Your task to perform on an android device: add a label to a message in the gmail app Image 0: 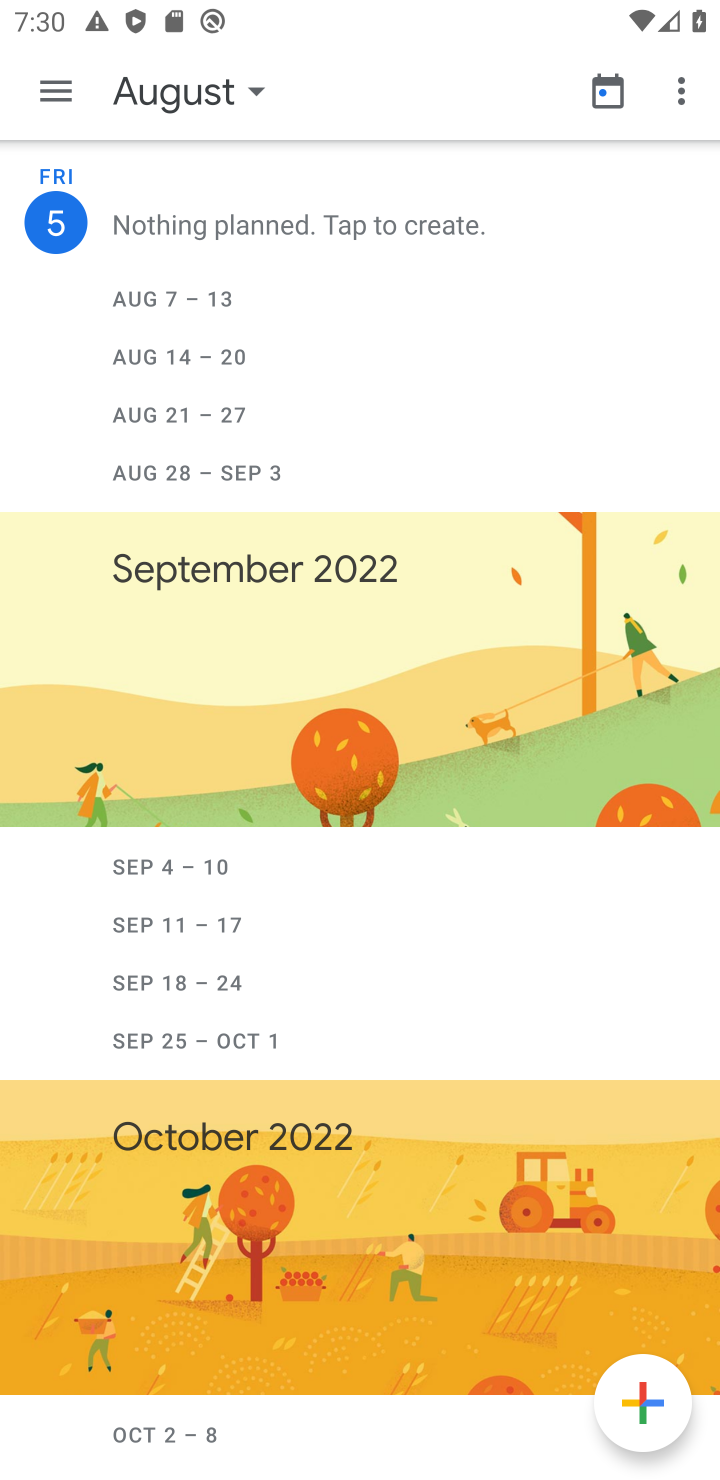
Step 0: press home button
Your task to perform on an android device: add a label to a message in the gmail app Image 1: 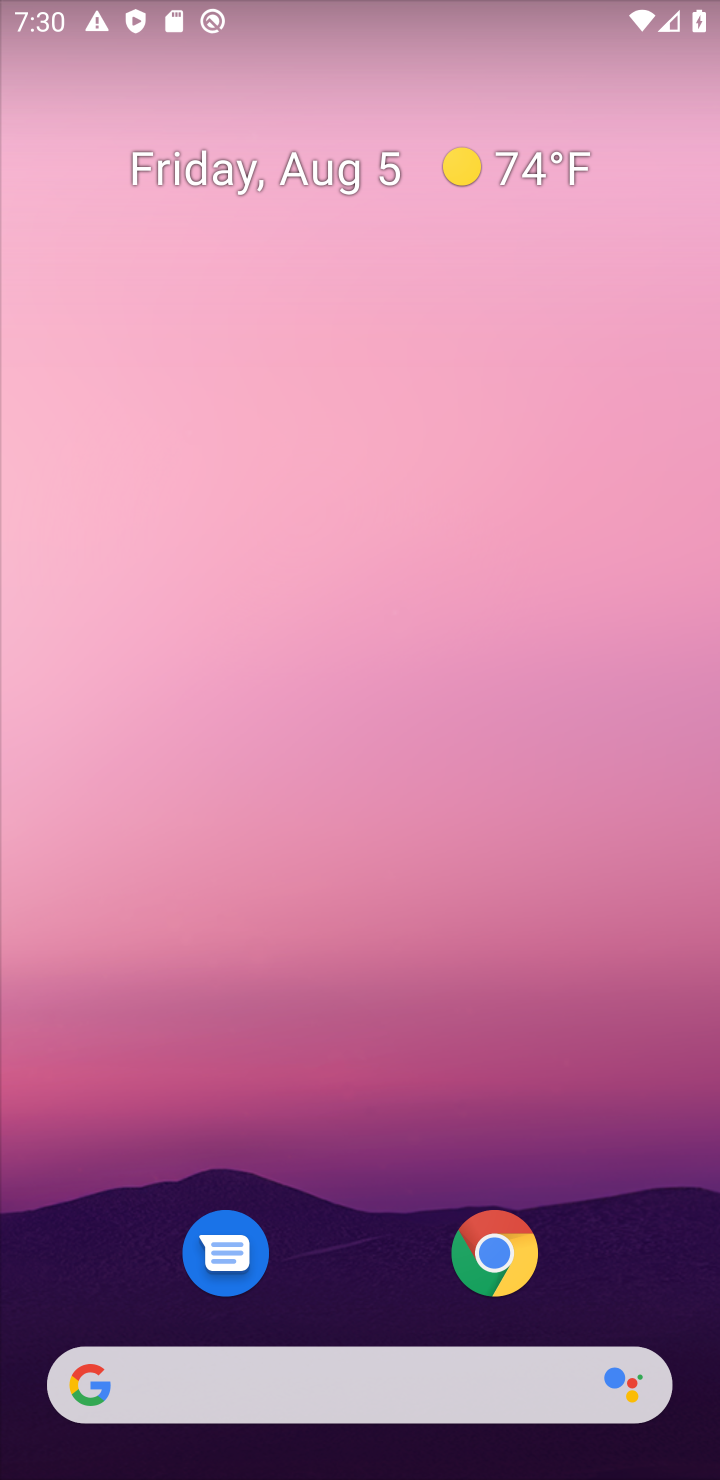
Step 1: drag from (436, 1258) to (714, 130)
Your task to perform on an android device: add a label to a message in the gmail app Image 2: 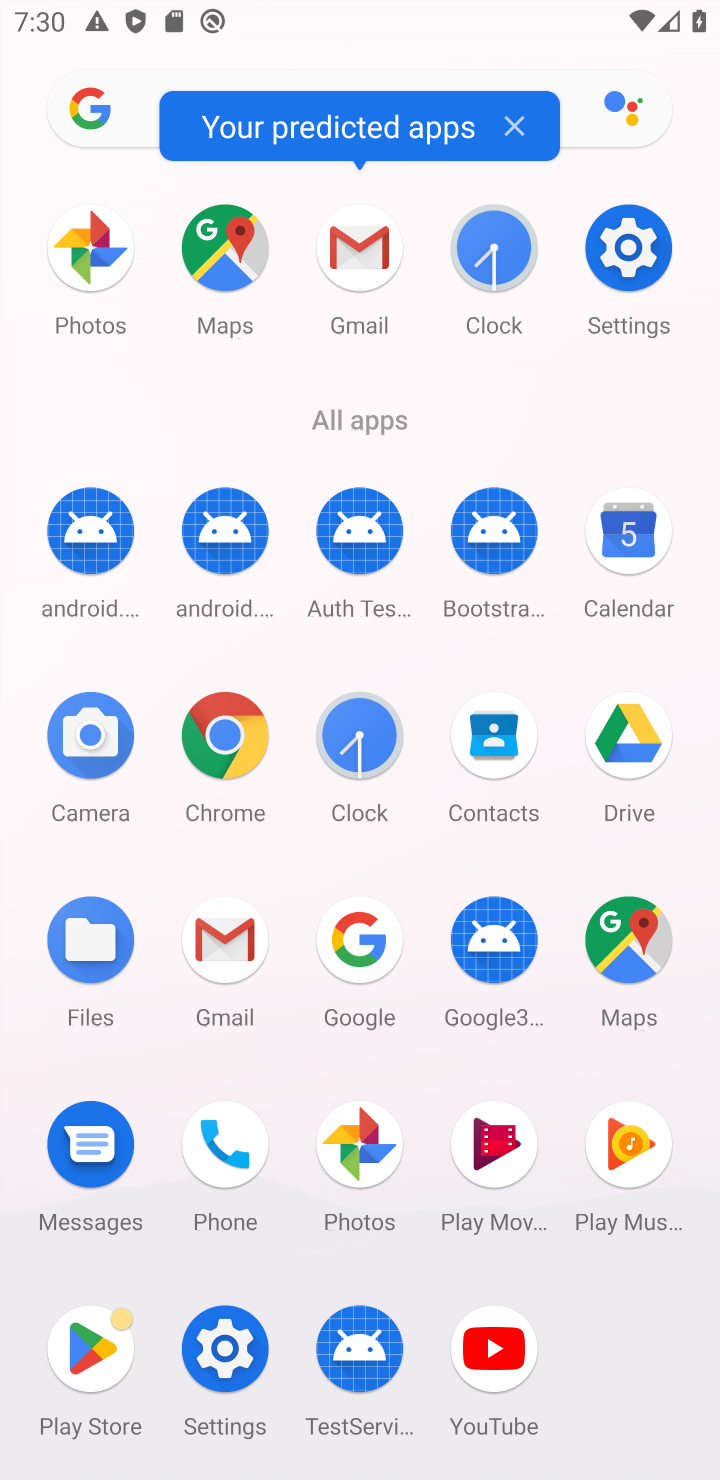
Step 2: click (364, 261)
Your task to perform on an android device: add a label to a message in the gmail app Image 3: 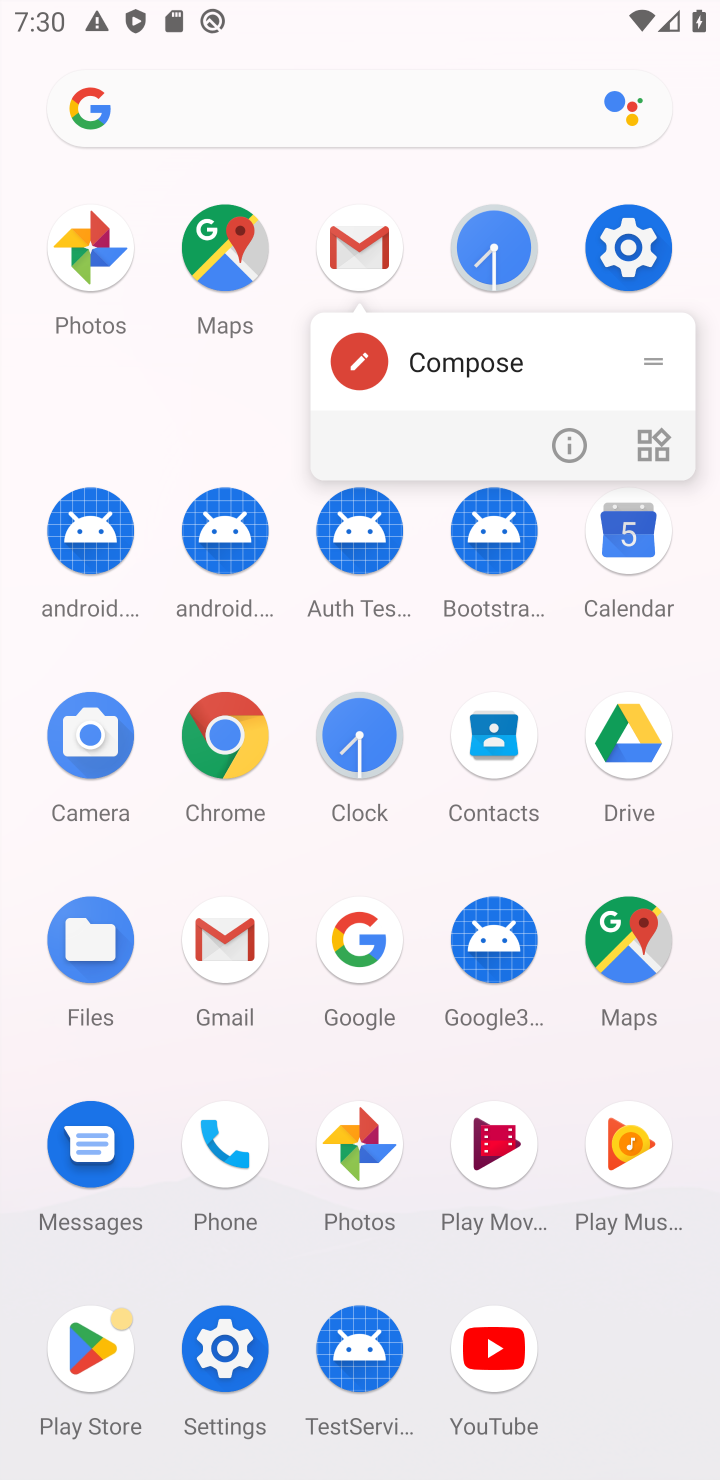
Step 3: click (355, 253)
Your task to perform on an android device: add a label to a message in the gmail app Image 4: 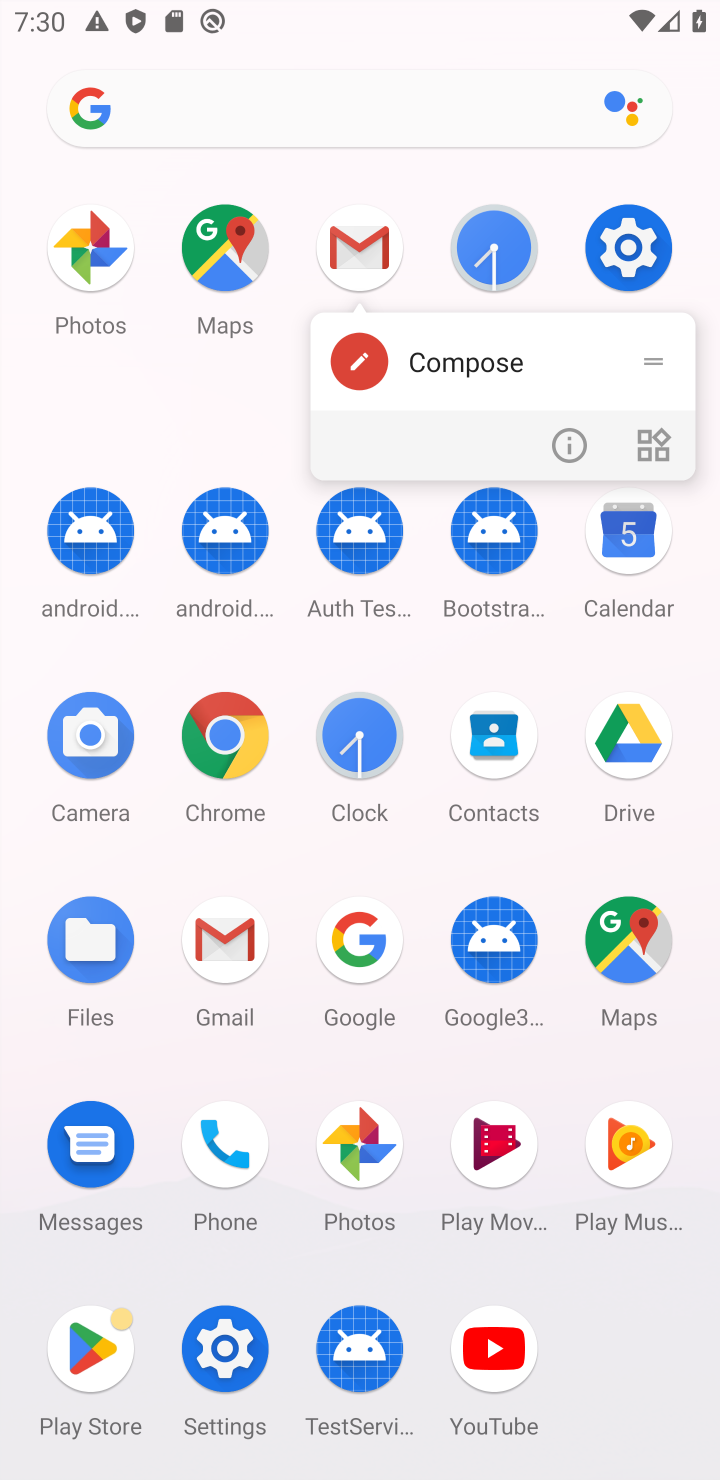
Step 4: click (357, 257)
Your task to perform on an android device: add a label to a message in the gmail app Image 5: 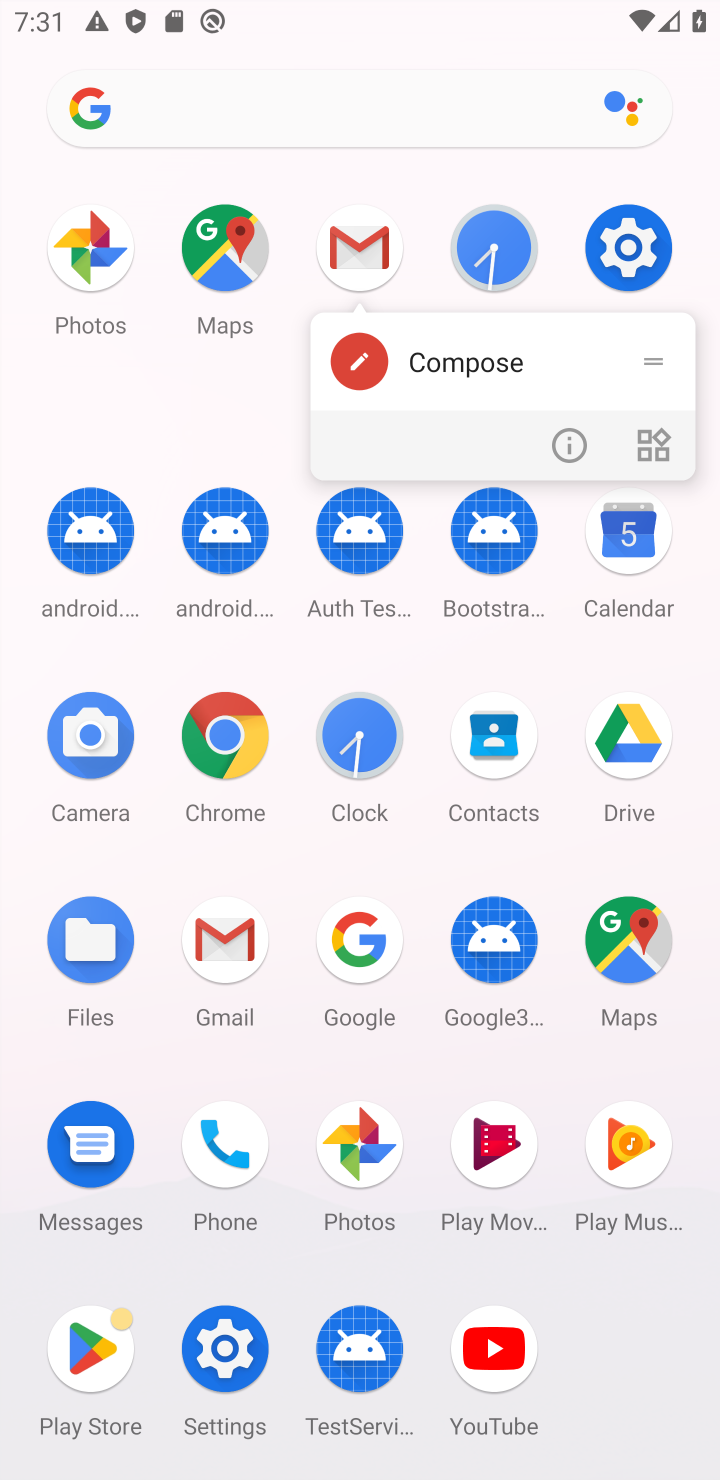
Step 5: click (365, 243)
Your task to perform on an android device: add a label to a message in the gmail app Image 6: 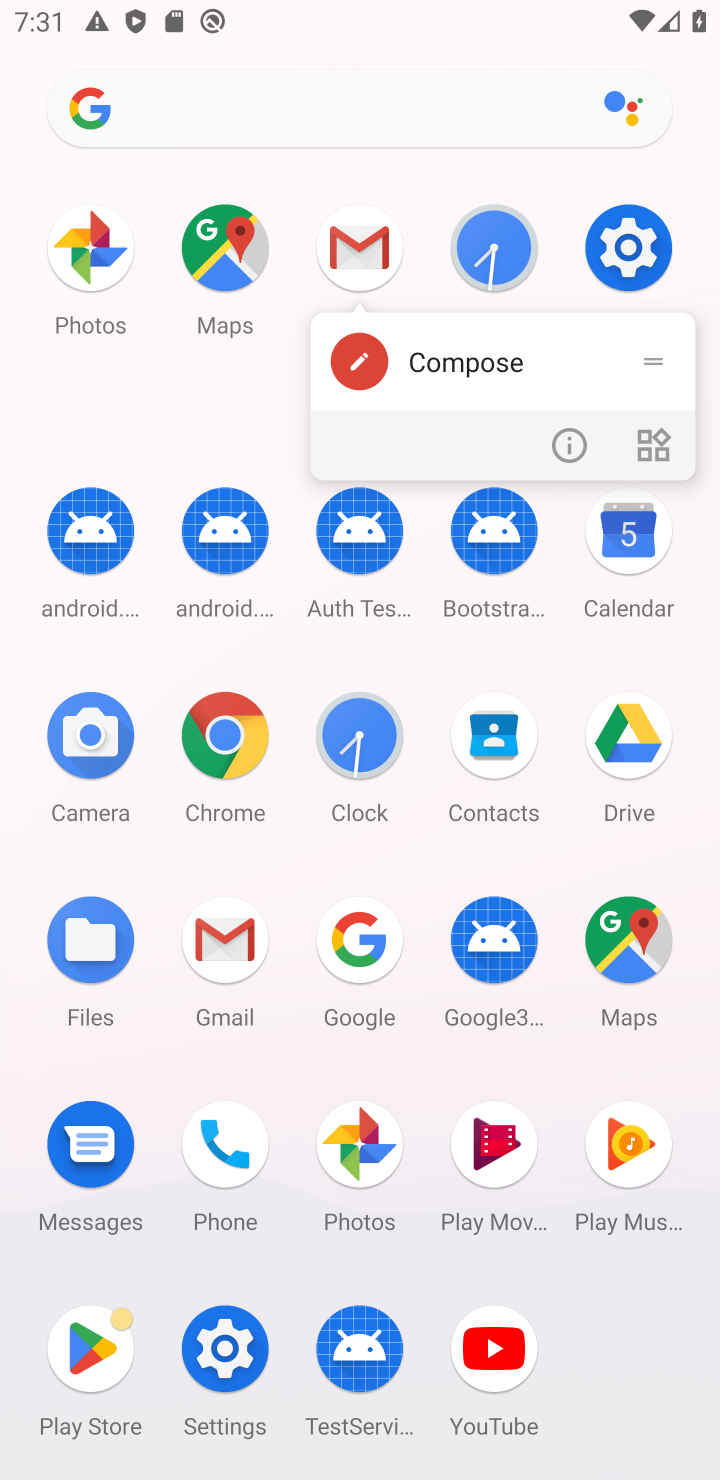
Step 6: click (365, 261)
Your task to perform on an android device: add a label to a message in the gmail app Image 7: 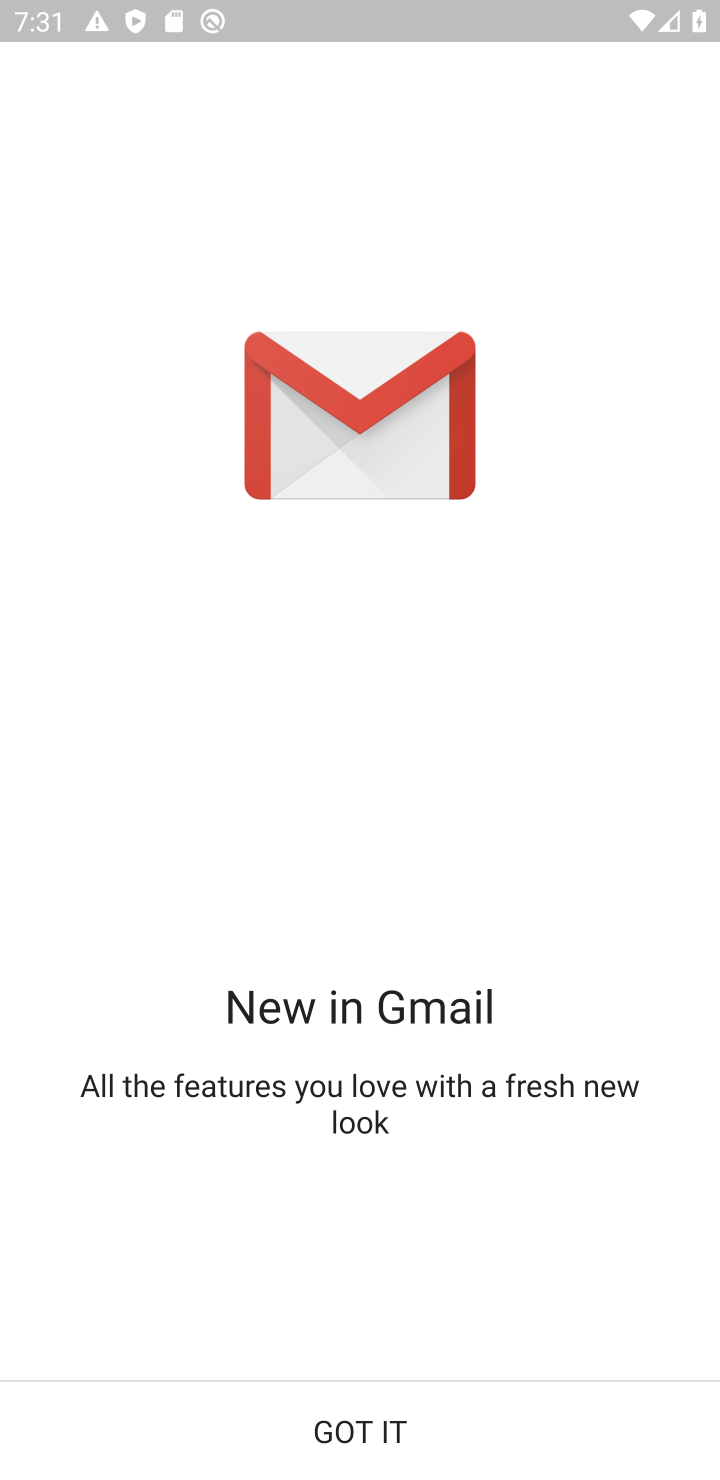
Step 7: click (359, 1422)
Your task to perform on an android device: add a label to a message in the gmail app Image 8: 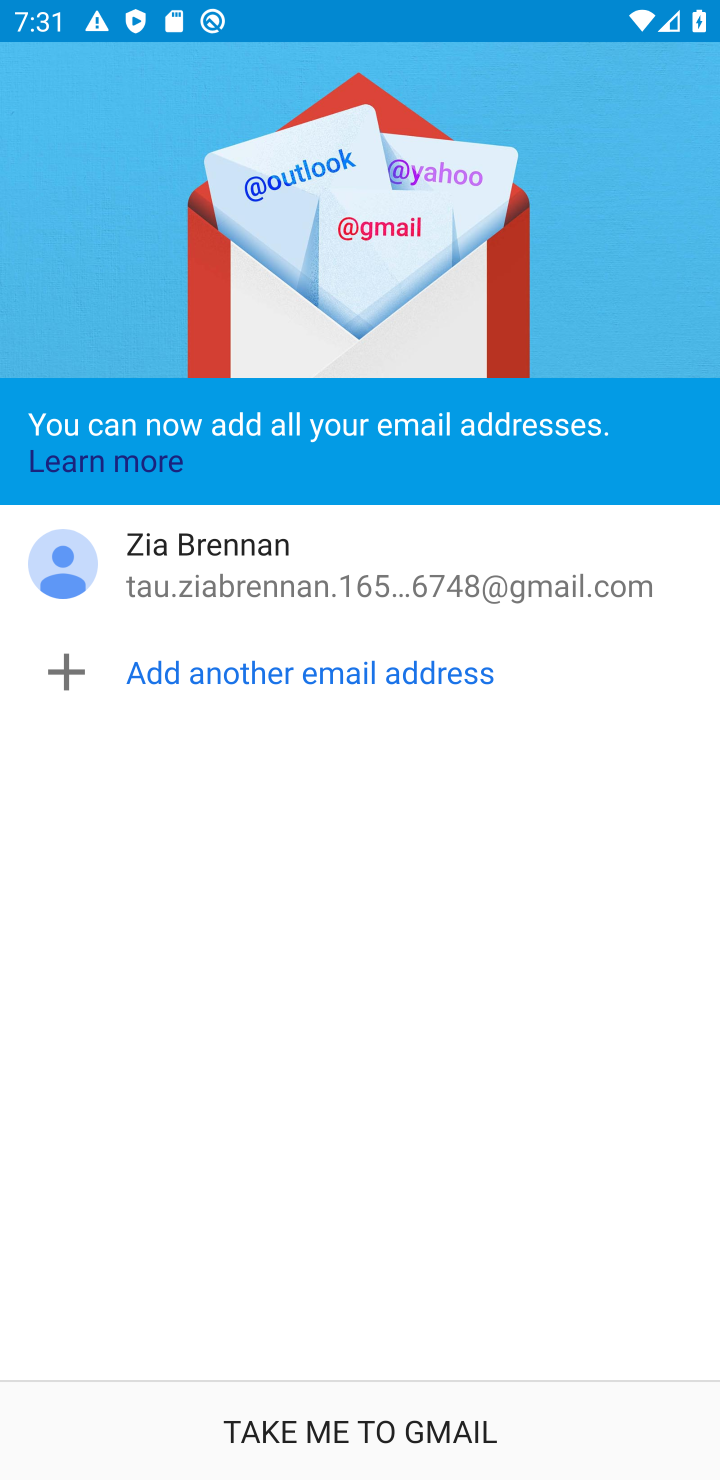
Step 8: click (366, 1420)
Your task to perform on an android device: add a label to a message in the gmail app Image 9: 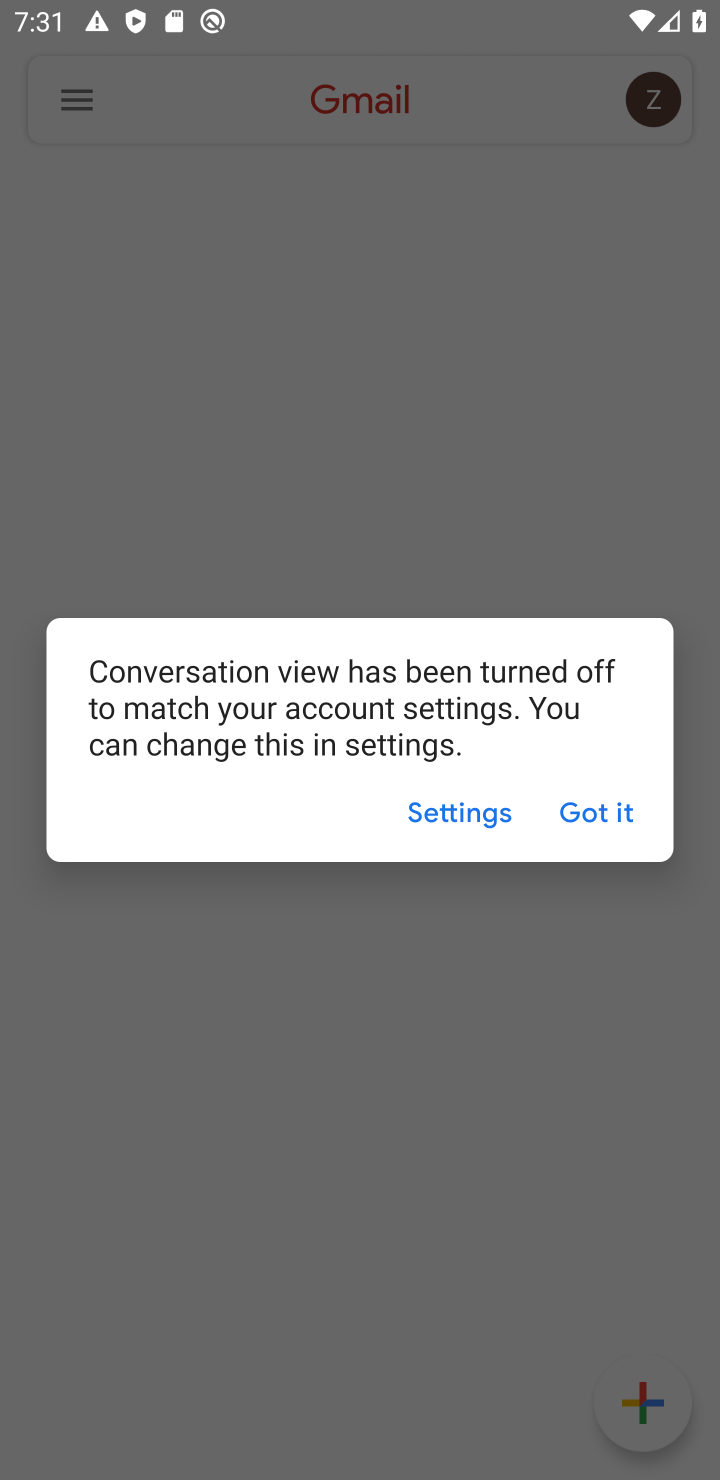
Step 9: click (611, 810)
Your task to perform on an android device: add a label to a message in the gmail app Image 10: 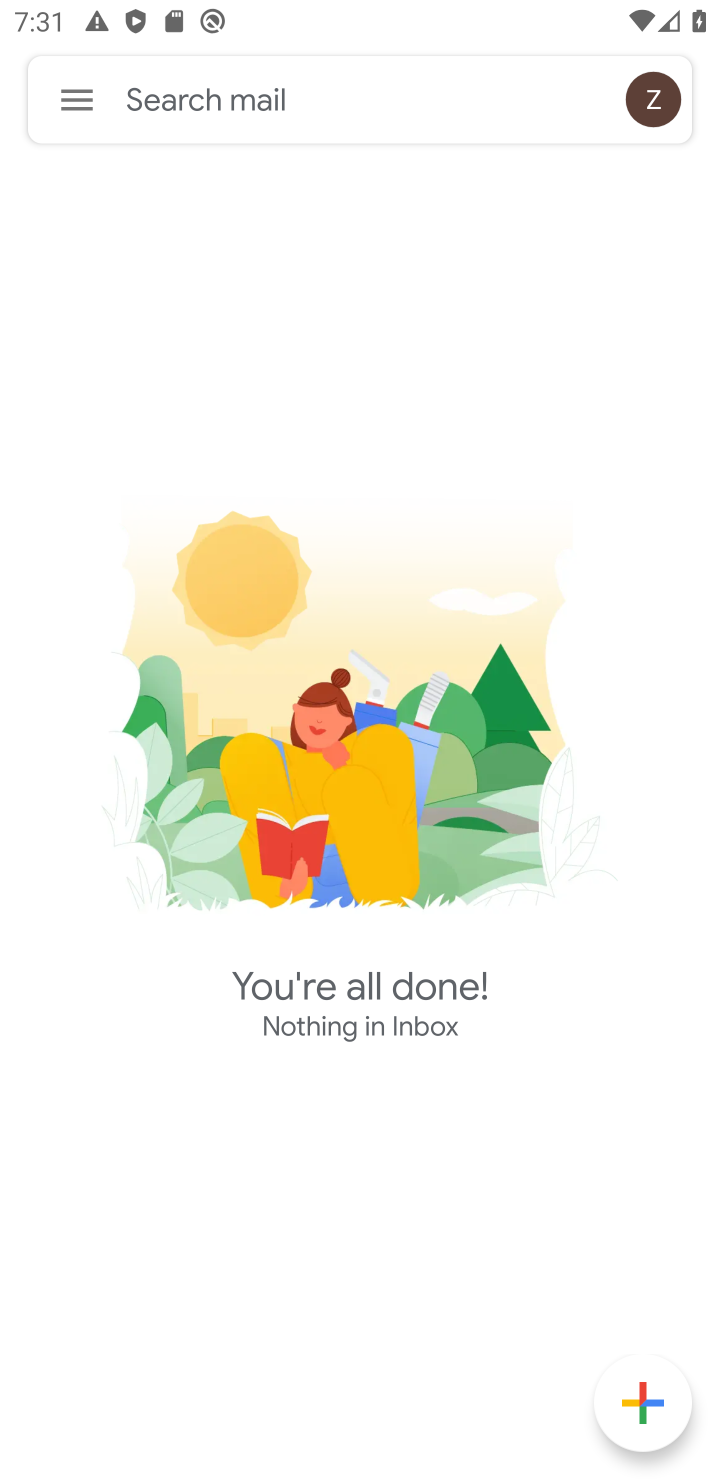
Step 10: click (66, 88)
Your task to perform on an android device: add a label to a message in the gmail app Image 11: 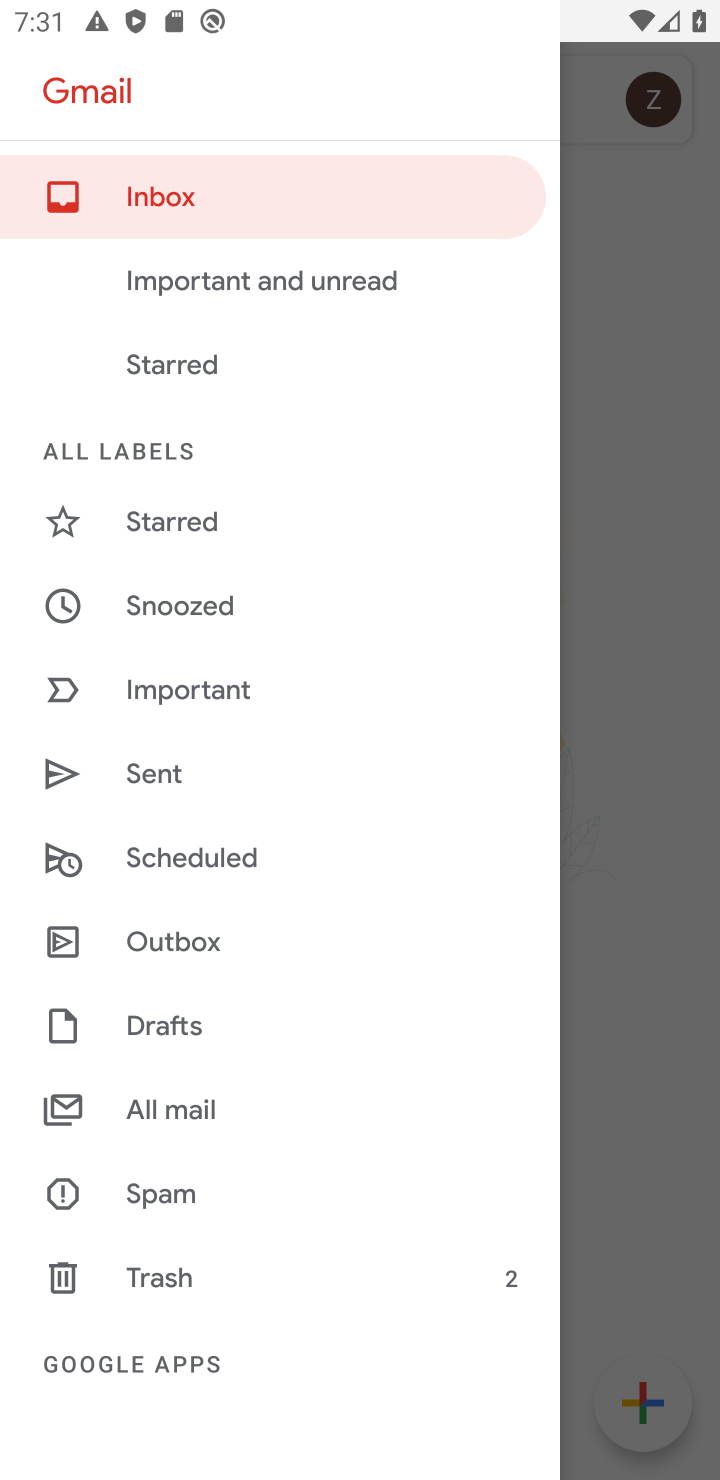
Step 11: click (216, 1096)
Your task to perform on an android device: add a label to a message in the gmail app Image 12: 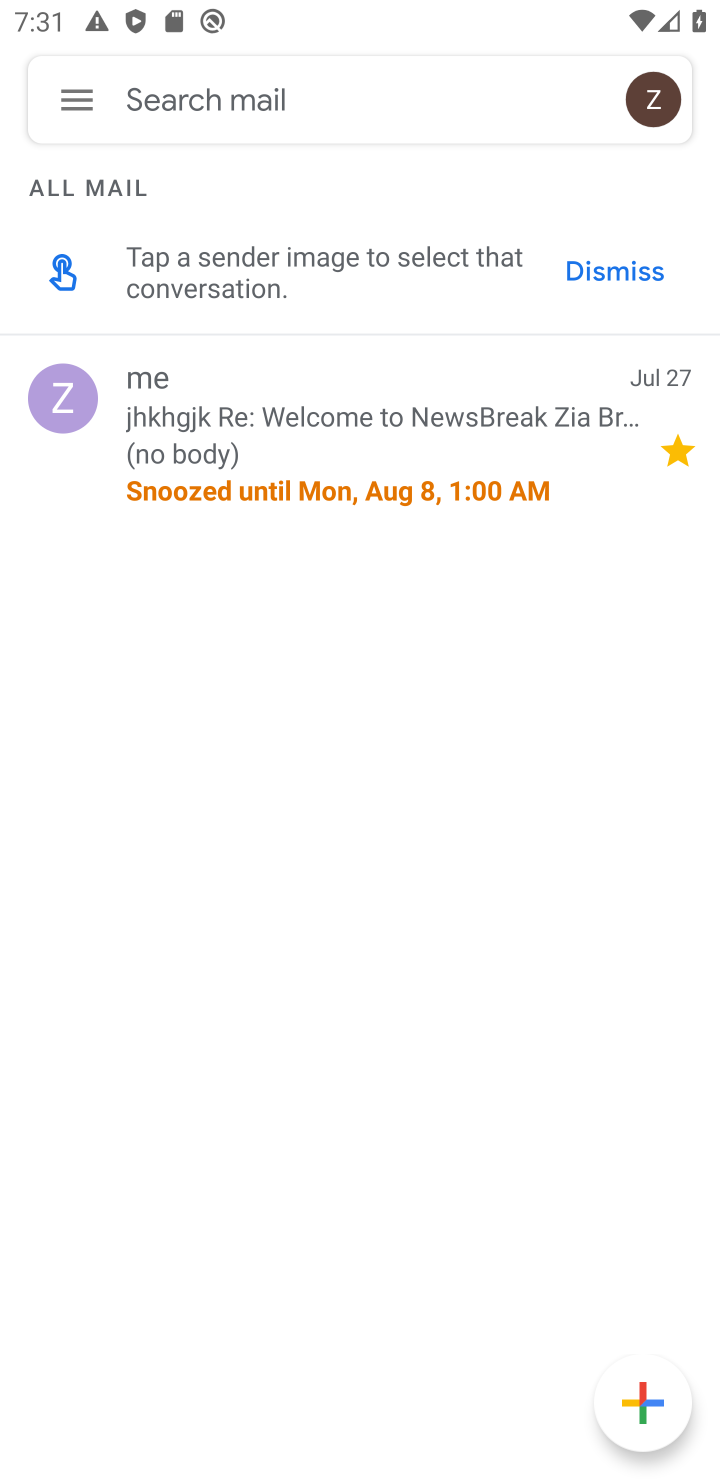
Step 12: click (268, 405)
Your task to perform on an android device: add a label to a message in the gmail app Image 13: 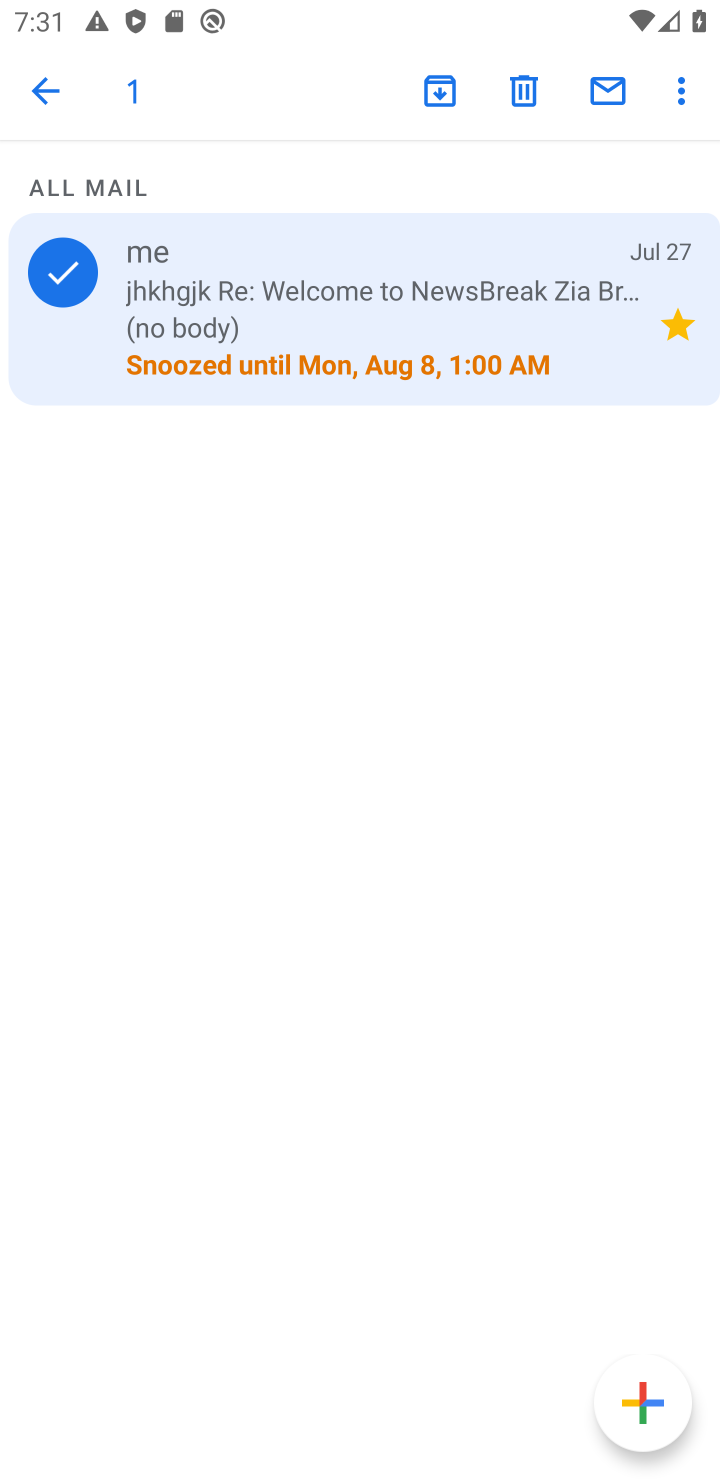
Step 13: click (215, 300)
Your task to perform on an android device: add a label to a message in the gmail app Image 14: 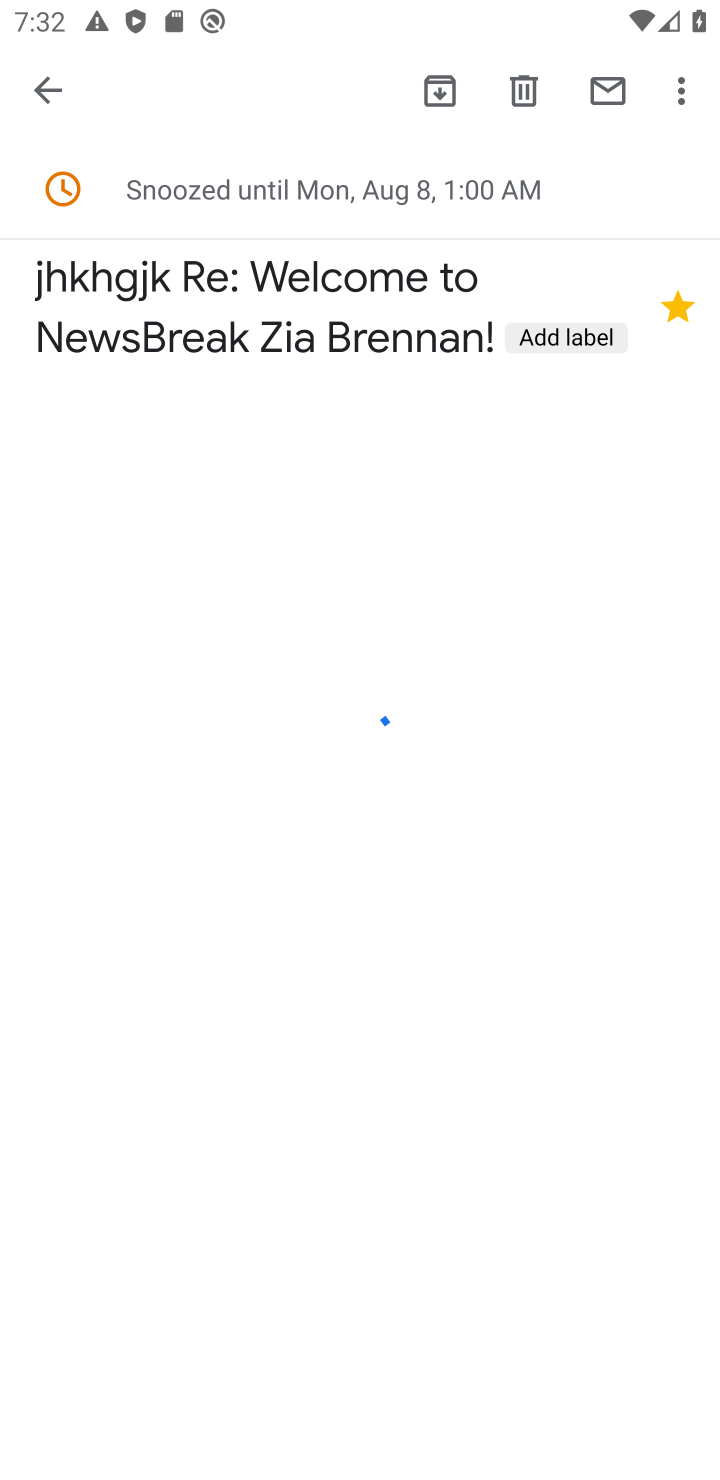
Step 14: click (584, 330)
Your task to perform on an android device: add a label to a message in the gmail app Image 15: 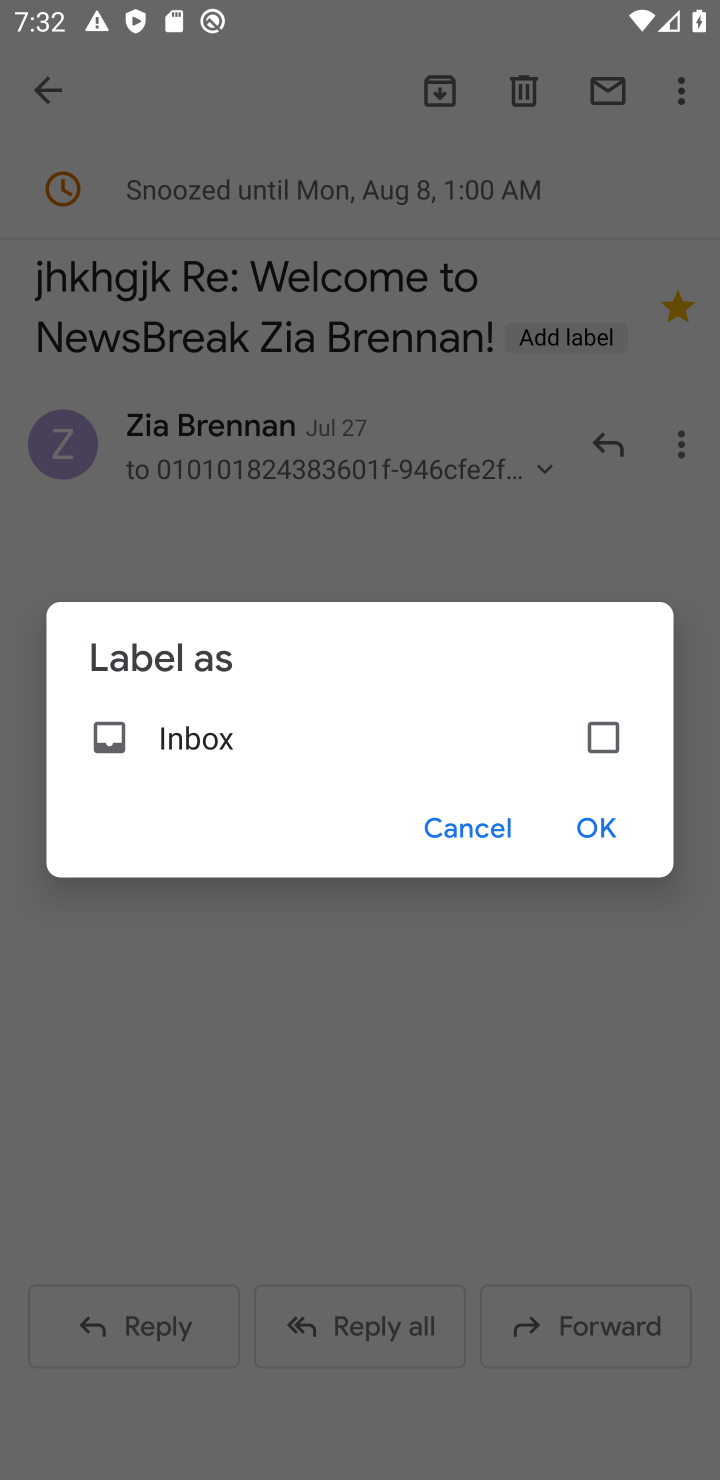
Step 15: click (601, 733)
Your task to perform on an android device: add a label to a message in the gmail app Image 16: 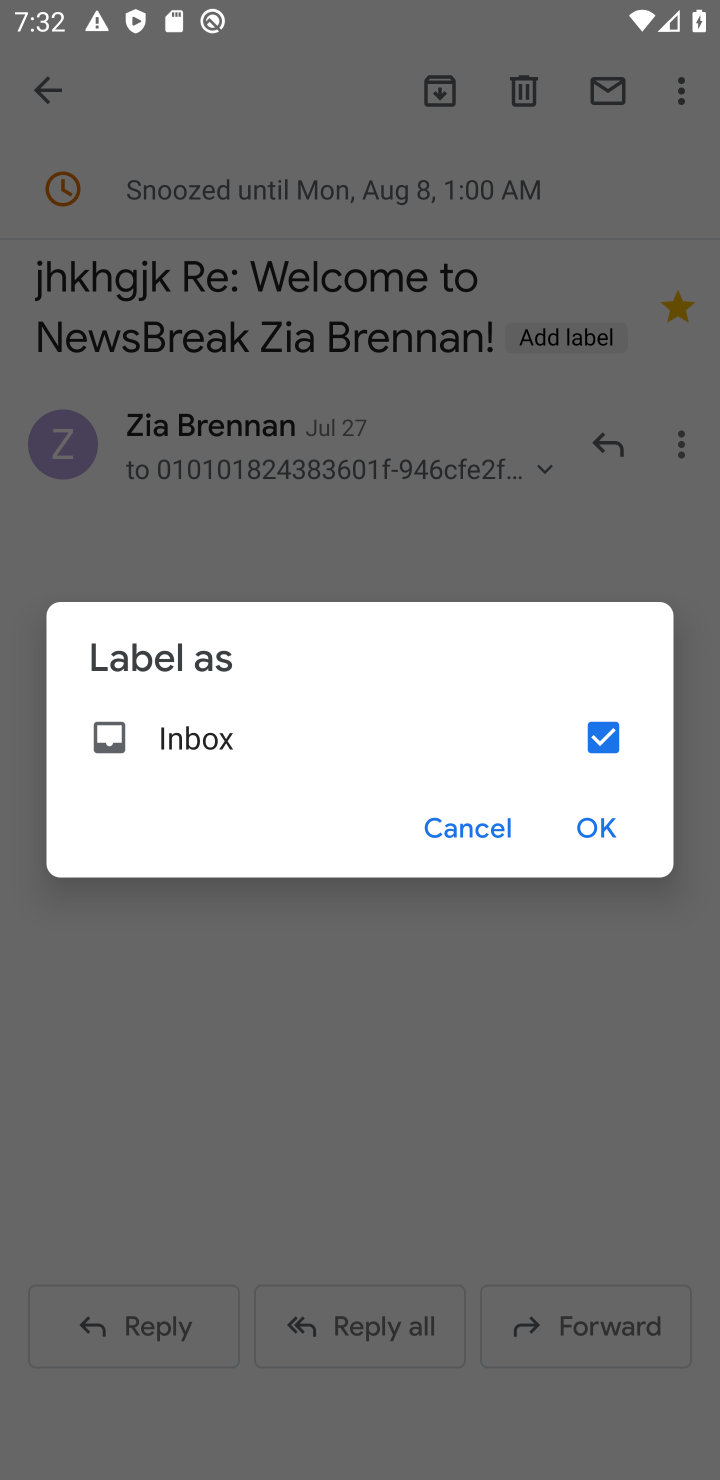
Step 16: click (608, 829)
Your task to perform on an android device: add a label to a message in the gmail app Image 17: 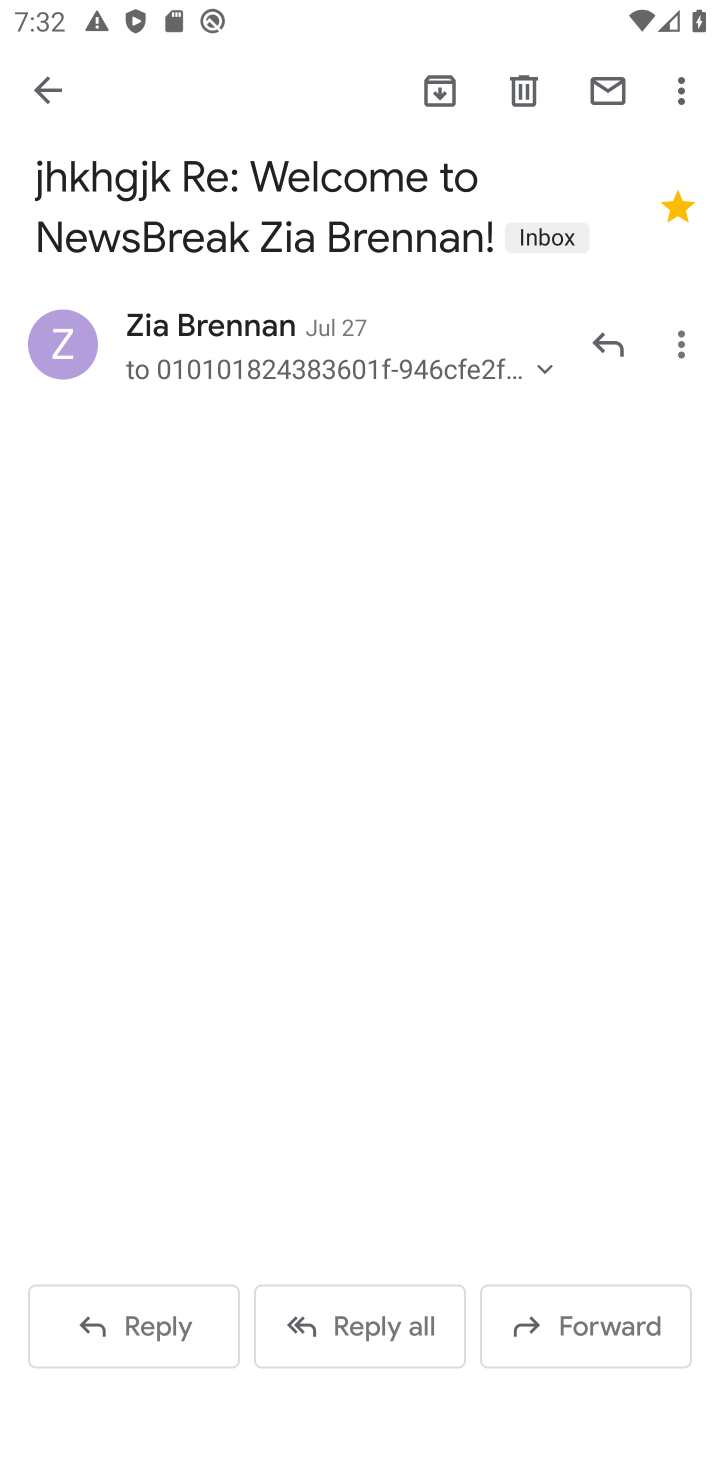
Step 17: task complete